Your task to perform on an android device: Go to accessibility settings Image 0: 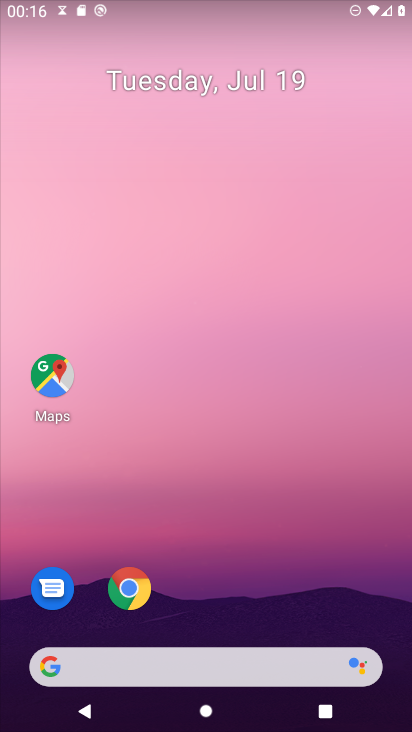
Step 0: drag from (216, 590) to (177, 6)
Your task to perform on an android device: Go to accessibility settings Image 1: 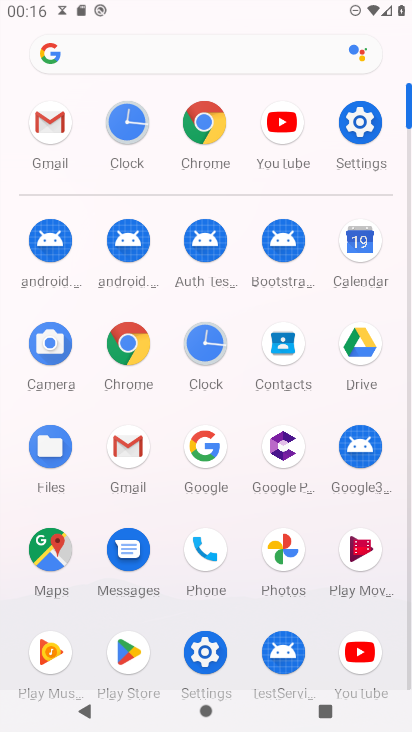
Step 1: click (360, 119)
Your task to perform on an android device: Go to accessibility settings Image 2: 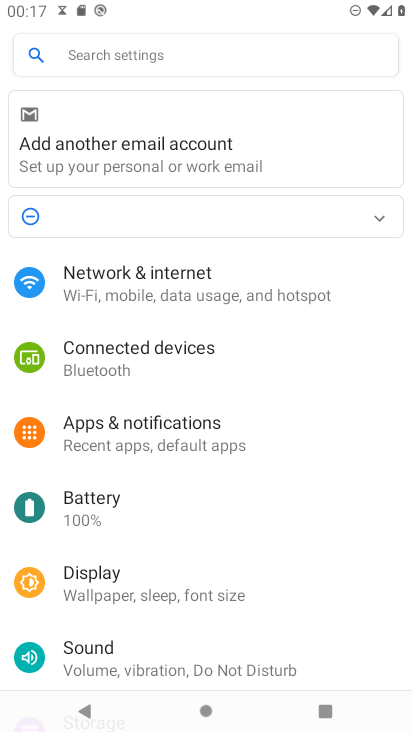
Step 2: drag from (151, 547) to (114, 156)
Your task to perform on an android device: Go to accessibility settings Image 3: 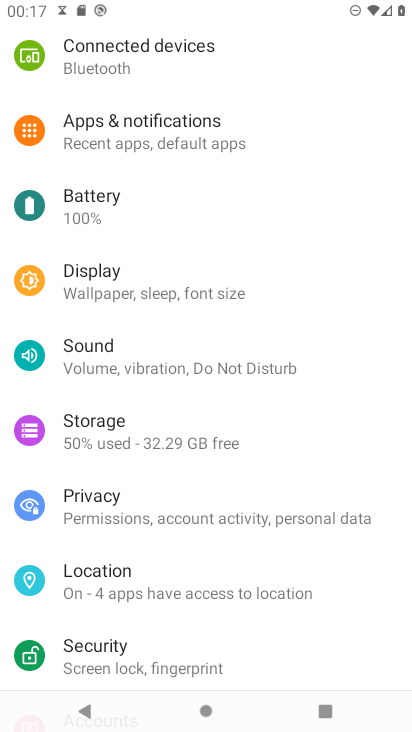
Step 3: drag from (93, 612) to (94, 184)
Your task to perform on an android device: Go to accessibility settings Image 4: 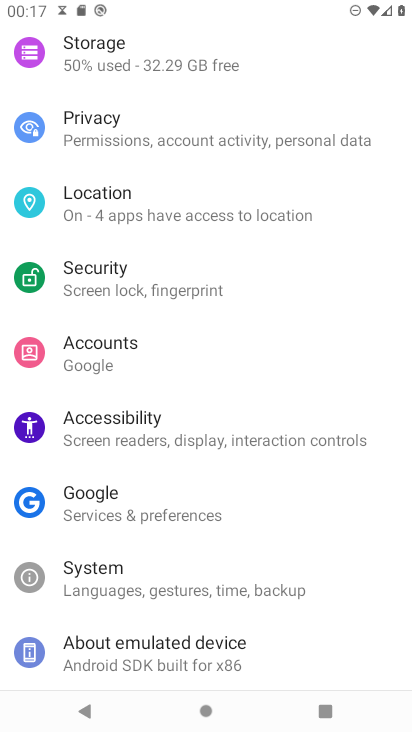
Step 4: click (113, 434)
Your task to perform on an android device: Go to accessibility settings Image 5: 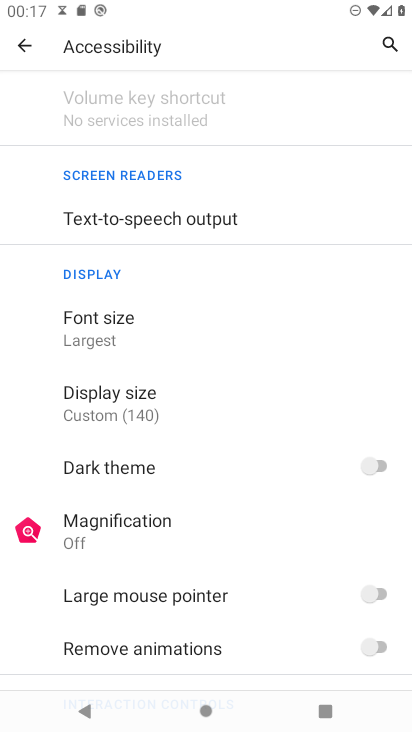
Step 5: task complete